Your task to perform on an android device: turn on translation in the chrome app Image 0: 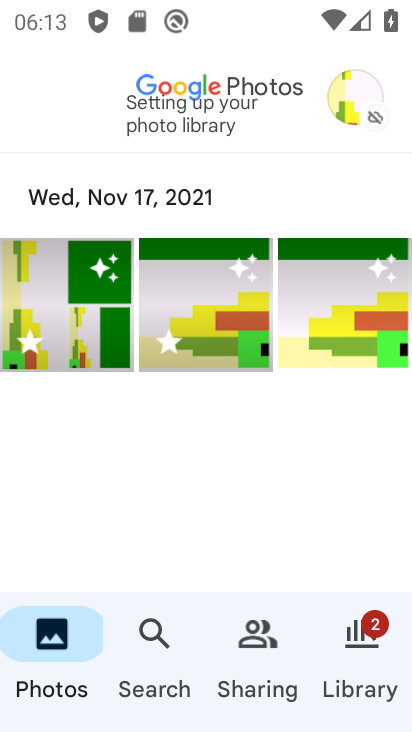
Step 0: click (334, 104)
Your task to perform on an android device: turn on translation in the chrome app Image 1: 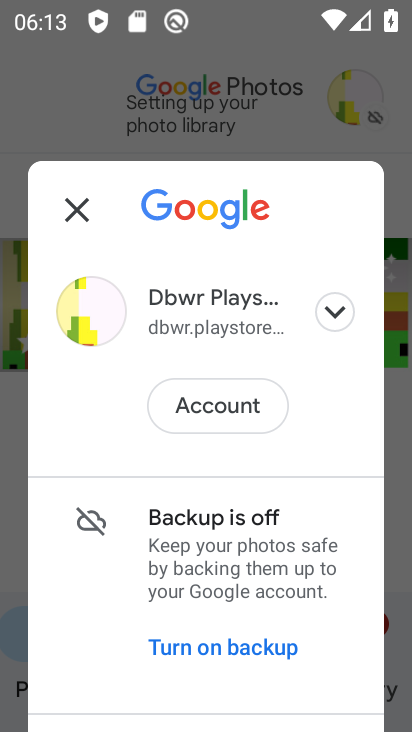
Step 1: click (212, 549)
Your task to perform on an android device: turn on translation in the chrome app Image 2: 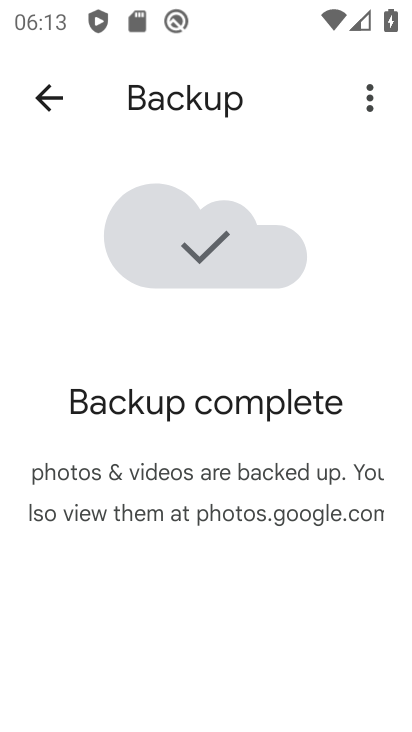
Step 2: click (361, 96)
Your task to perform on an android device: turn on translation in the chrome app Image 3: 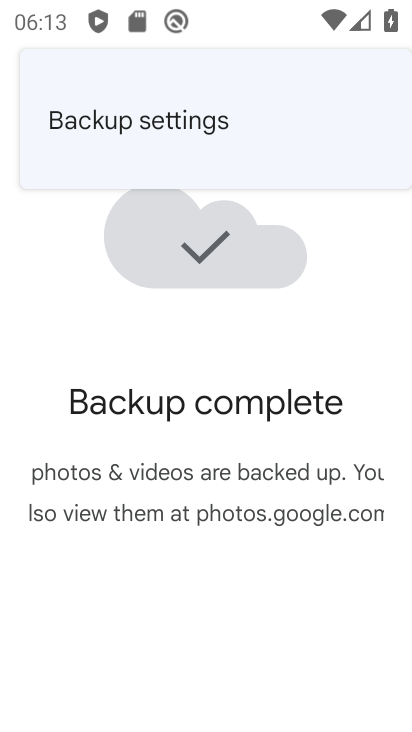
Step 3: click (139, 132)
Your task to perform on an android device: turn on translation in the chrome app Image 4: 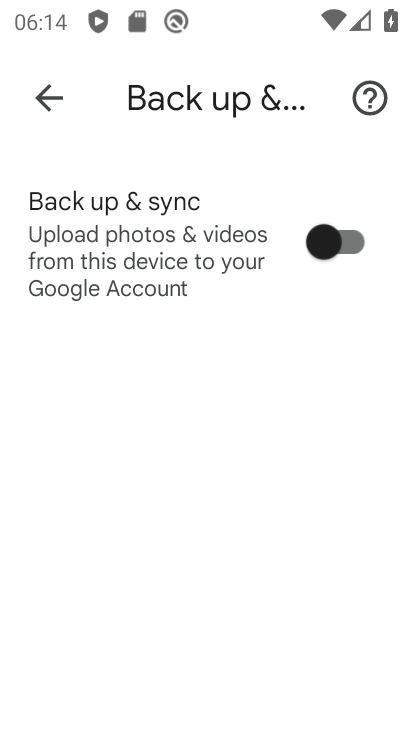
Step 4: click (343, 233)
Your task to perform on an android device: turn on translation in the chrome app Image 5: 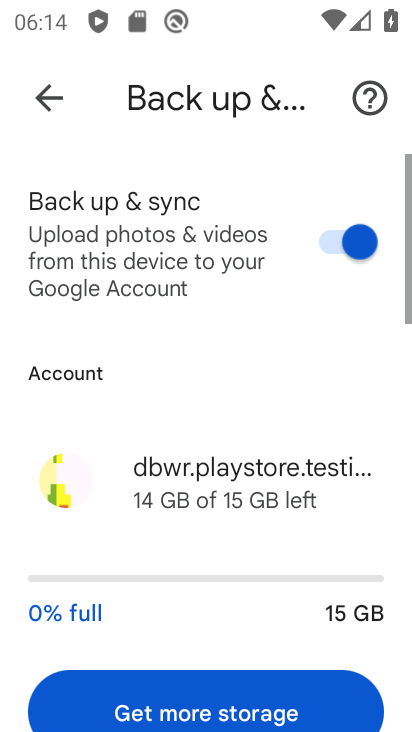
Step 5: task complete